Your task to perform on an android device: Open internet settings Image 0: 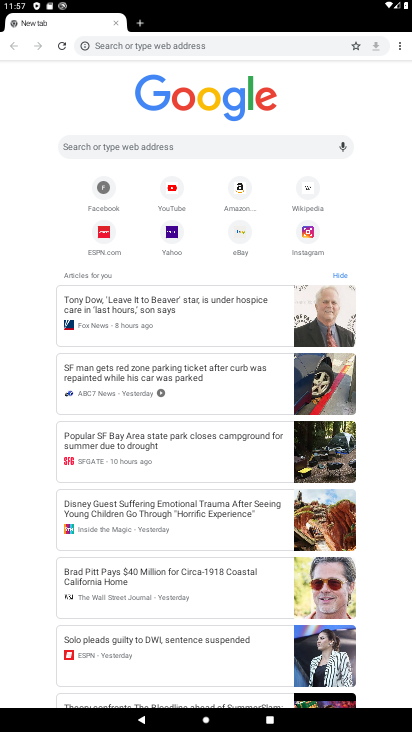
Step 0: press home button
Your task to perform on an android device: Open internet settings Image 1: 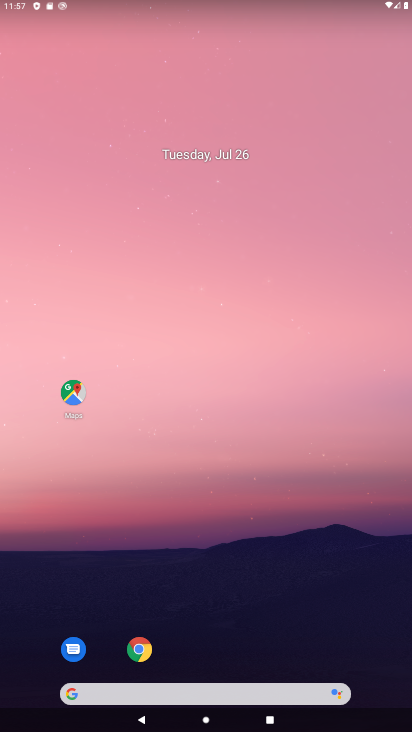
Step 1: drag from (234, 568) to (213, 42)
Your task to perform on an android device: Open internet settings Image 2: 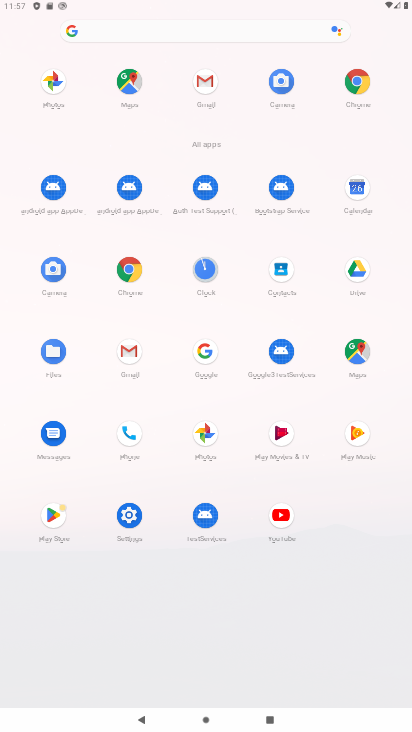
Step 2: click (125, 517)
Your task to perform on an android device: Open internet settings Image 3: 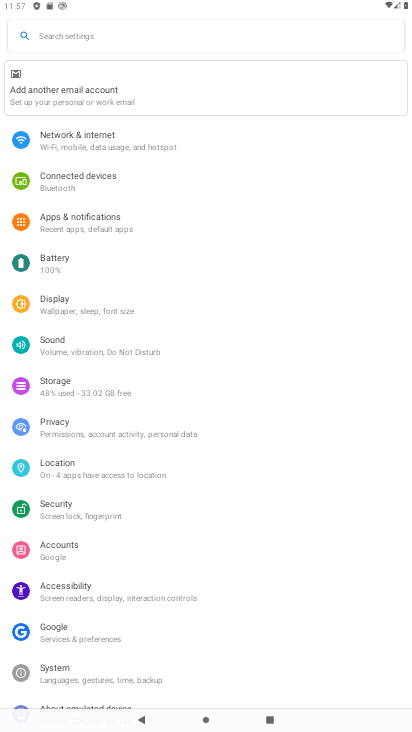
Step 3: click (73, 135)
Your task to perform on an android device: Open internet settings Image 4: 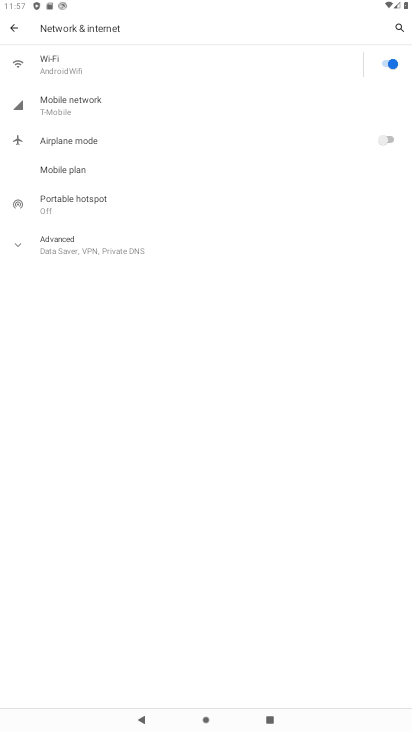
Step 4: task complete